Your task to perform on an android device: Clear the shopping cart on ebay. Search for usb-a to usb-b on ebay, select the first entry, add it to the cart, then select checkout. Image 0: 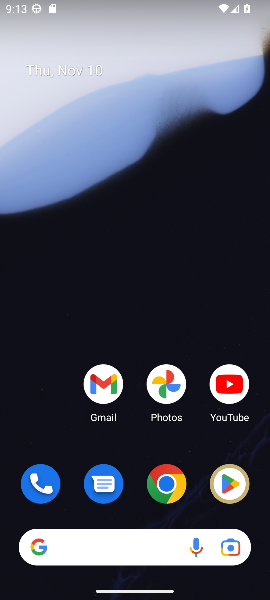
Step 0: click (170, 483)
Your task to perform on an android device: Clear the shopping cart on ebay. Search for usb-a to usb-b on ebay, select the first entry, add it to the cart, then select checkout. Image 1: 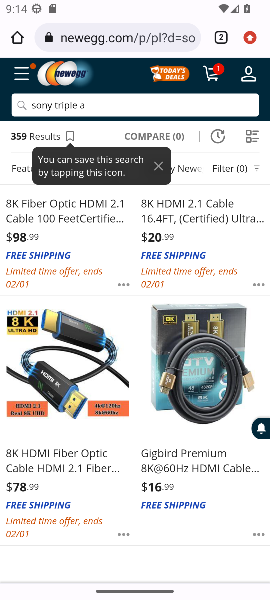
Step 1: click (128, 39)
Your task to perform on an android device: Clear the shopping cart on ebay. Search for usb-a to usb-b on ebay, select the first entry, add it to the cart, then select checkout. Image 2: 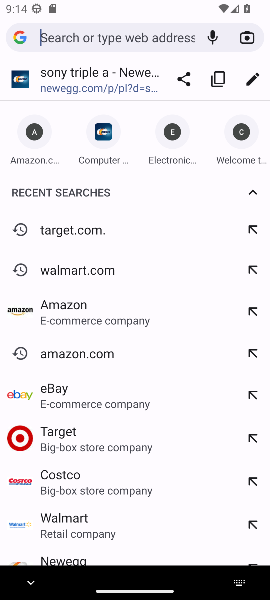
Step 2: type "ebay.com"
Your task to perform on an android device: Clear the shopping cart on ebay. Search for usb-a to usb-b on ebay, select the first entry, add it to the cart, then select checkout. Image 3: 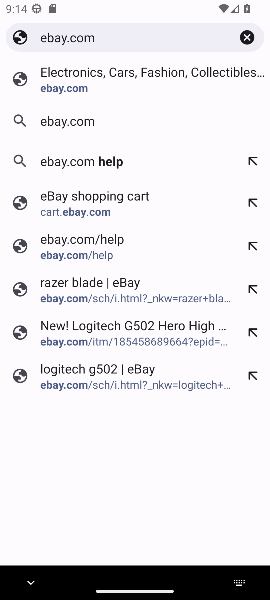
Step 3: click (61, 89)
Your task to perform on an android device: Clear the shopping cart on ebay. Search for usb-a to usb-b on ebay, select the first entry, add it to the cart, then select checkout. Image 4: 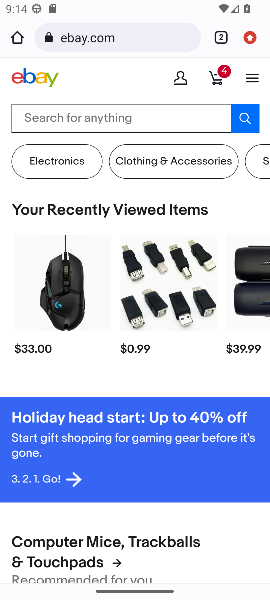
Step 4: click (217, 80)
Your task to perform on an android device: Clear the shopping cart on ebay. Search for usb-a to usb-b on ebay, select the first entry, add it to the cart, then select checkout. Image 5: 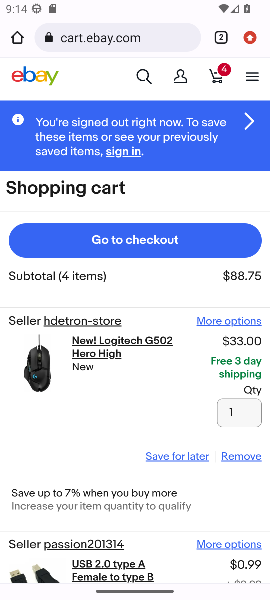
Step 5: click (244, 459)
Your task to perform on an android device: Clear the shopping cart on ebay. Search for usb-a to usb-b on ebay, select the first entry, add it to the cart, then select checkout. Image 6: 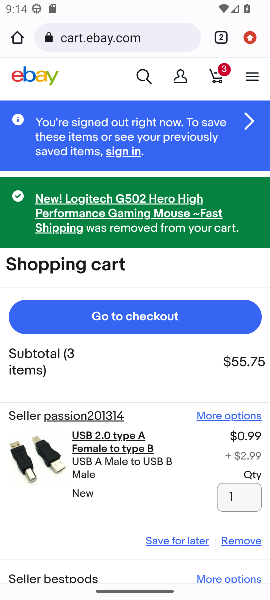
Step 6: click (242, 538)
Your task to perform on an android device: Clear the shopping cart on ebay. Search for usb-a to usb-b on ebay, select the first entry, add it to the cart, then select checkout. Image 7: 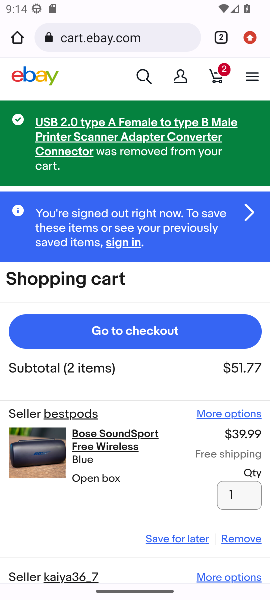
Step 7: click (242, 538)
Your task to perform on an android device: Clear the shopping cart on ebay. Search for usb-a to usb-b on ebay, select the first entry, add it to the cart, then select checkout. Image 8: 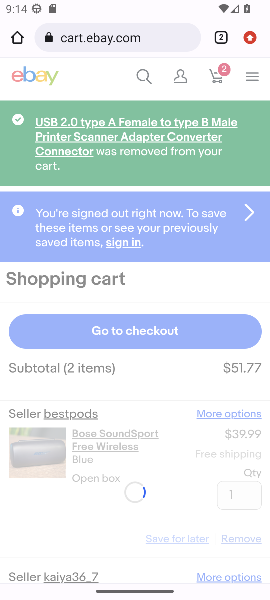
Step 8: drag from (174, 456) to (164, 389)
Your task to perform on an android device: Clear the shopping cart on ebay. Search for usb-a to usb-b on ebay, select the first entry, add it to the cart, then select checkout. Image 9: 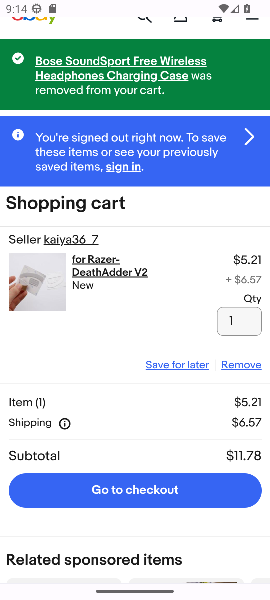
Step 9: click (231, 367)
Your task to perform on an android device: Clear the shopping cart on ebay. Search for usb-a to usb-b on ebay, select the first entry, add it to the cart, then select checkout. Image 10: 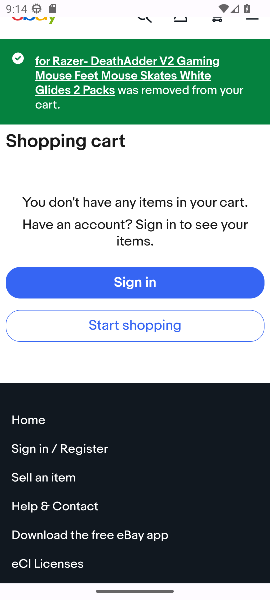
Step 10: drag from (163, 183) to (163, 363)
Your task to perform on an android device: Clear the shopping cart on ebay. Search for usb-a to usb-b on ebay, select the first entry, add it to the cart, then select checkout. Image 11: 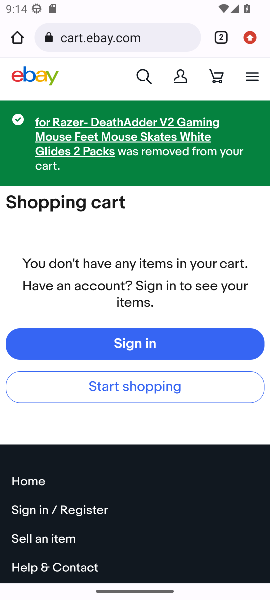
Step 11: click (140, 78)
Your task to perform on an android device: Clear the shopping cart on ebay. Search for usb-a to usb-b on ebay, select the first entry, add it to the cart, then select checkout. Image 12: 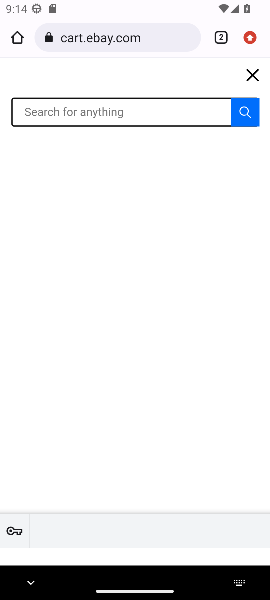
Step 12: type "usb-a to usb-b "
Your task to perform on an android device: Clear the shopping cart on ebay. Search for usb-a to usb-b on ebay, select the first entry, add it to the cart, then select checkout. Image 13: 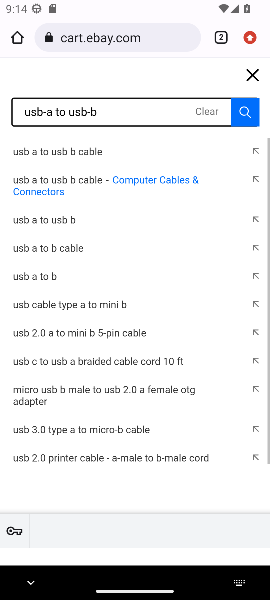
Step 13: click (243, 112)
Your task to perform on an android device: Clear the shopping cart on ebay. Search for usb-a to usb-b on ebay, select the first entry, add it to the cart, then select checkout. Image 14: 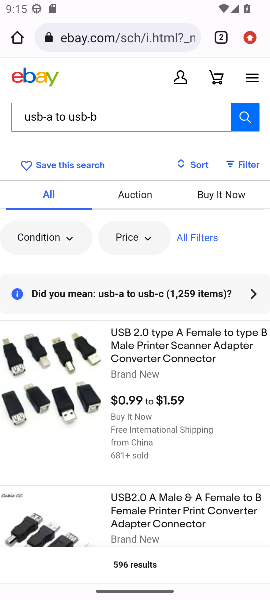
Step 14: click (62, 419)
Your task to perform on an android device: Clear the shopping cart on ebay. Search for usb-a to usb-b on ebay, select the first entry, add it to the cart, then select checkout. Image 15: 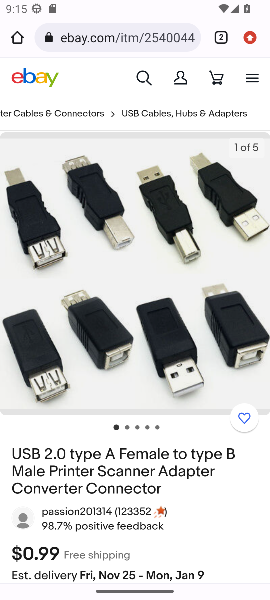
Step 15: task complete